Your task to perform on an android device: Open internet settings Image 0: 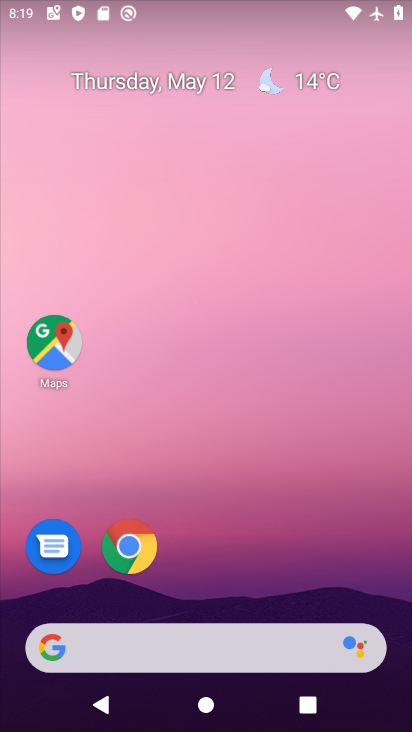
Step 0: drag from (184, 644) to (331, 53)
Your task to perform on an android device: Open internet settings Image 1: 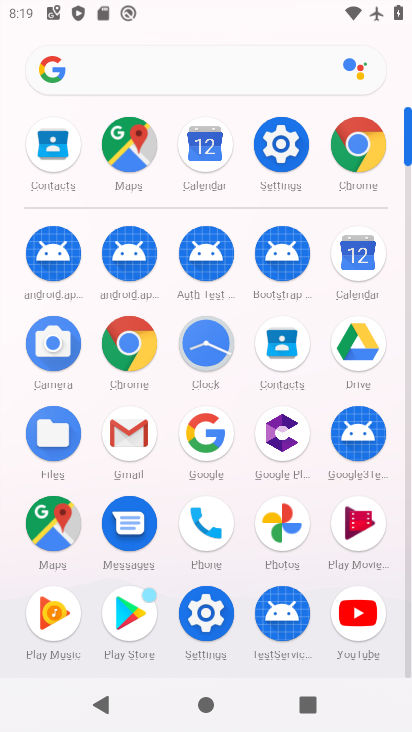
Step 1: click (307, 145)
Your task to perform on an android device: Open internet settings Image 2: 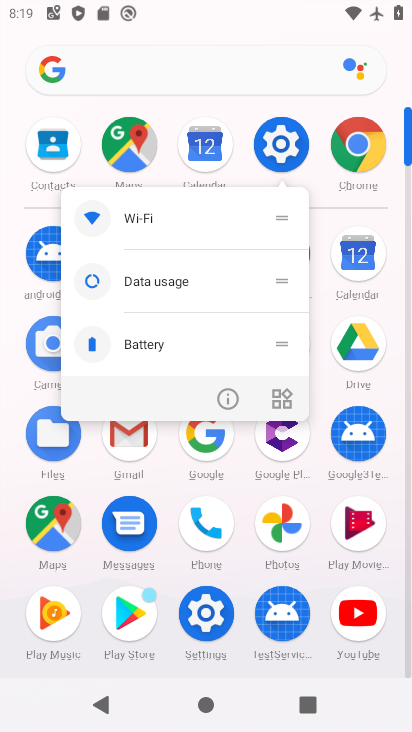
Step 2: click (273, 149)
Your task to perform on an android device: Open internet settings Image 3: 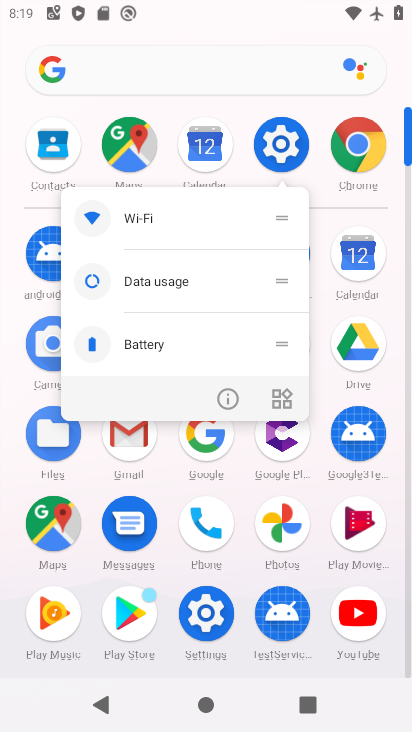
Step 3: click (277, 145)
Your task to perform on an android device: Open internet settings Image 4: 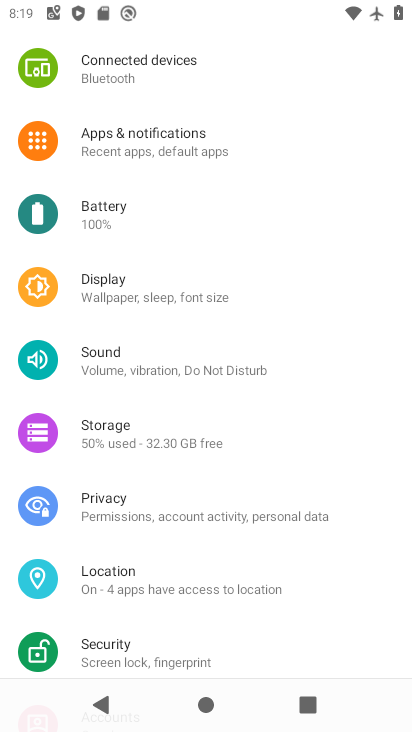
Step 4: drag from (242, 99) to (218, 504)
Your task to perform on an android device: Open internet settings Image 5: 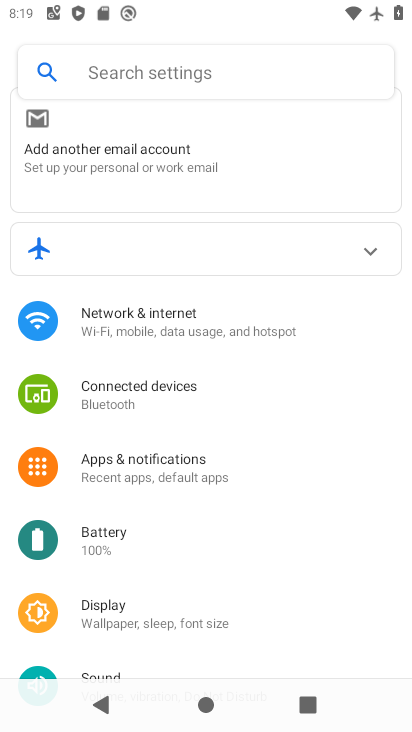
Step 5: click (165, 307)
Your task to perform on an android device: Open internet settings Image 6: 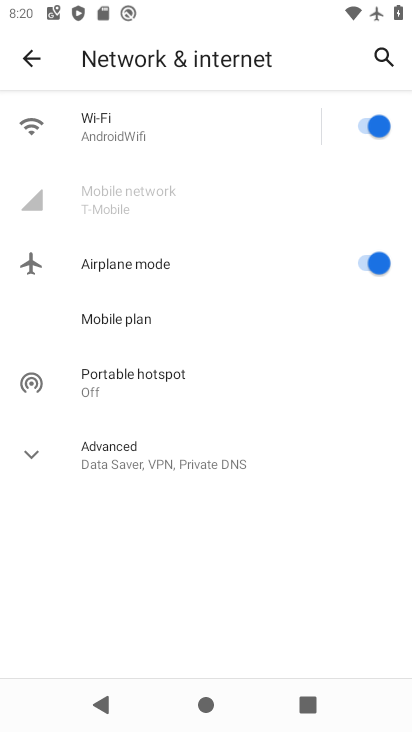
Step 6: task complete